Your task to perform on an android device: Go to notification settings Image 0: 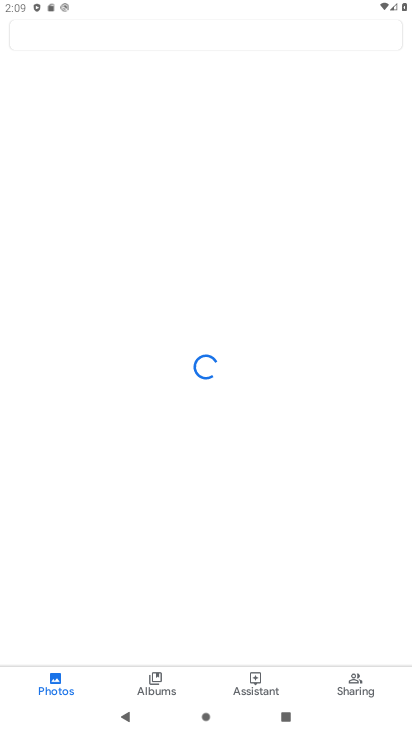
Step 0: press home button
Your task to perform on an android device: Go to notification settings Image 1: 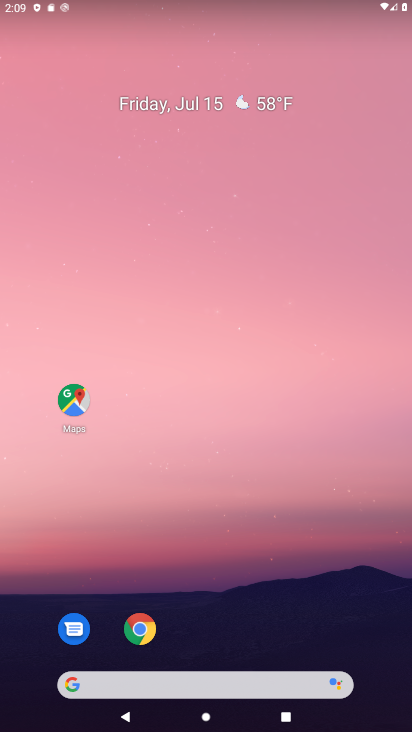
Step 1: drag from (292, 596) to (204, 4)
Your task to perform on an android device: Go to notification settings Image 2: 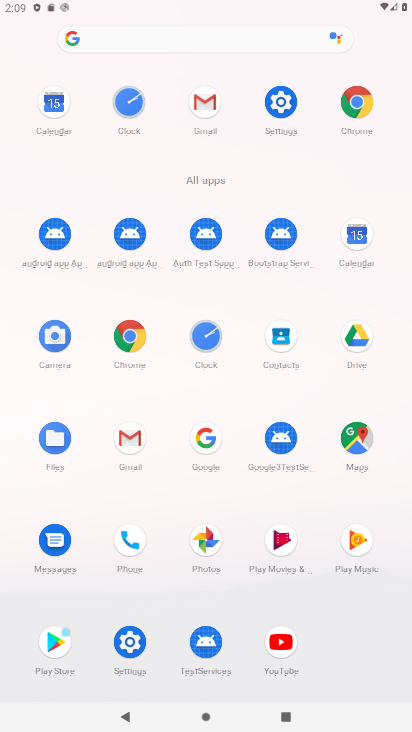
Step 2: click (284, 93)
Your task to perform on an android device: Go to notification settings Image 3: 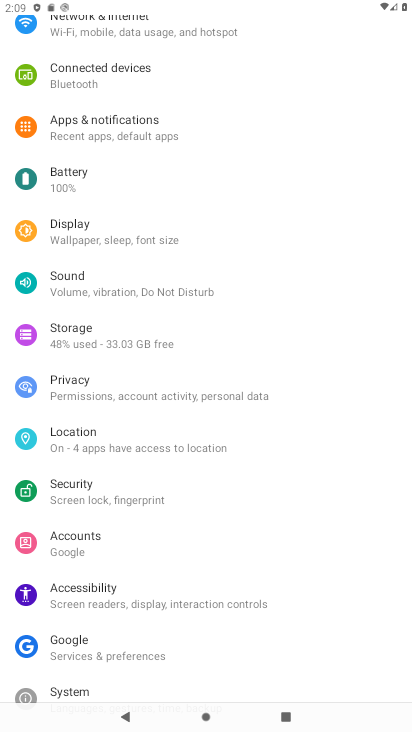
Step 3: click (154, 123)
Your task to perform on an android device: Go to notification settings Image 4: 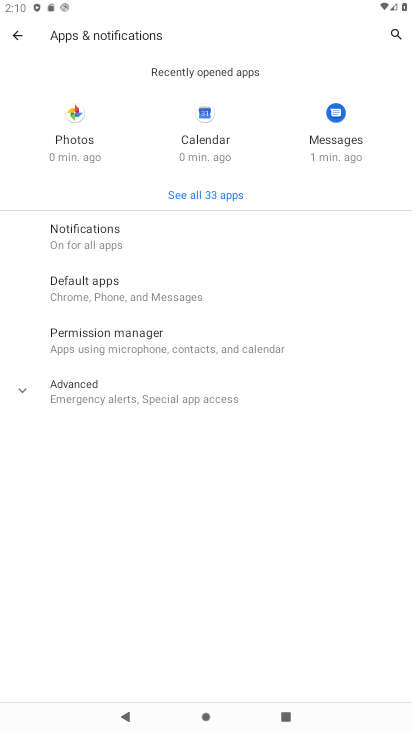
Step 4: click (252, 236)
Your task to perform on an android device: Go to notification settings Image 5: 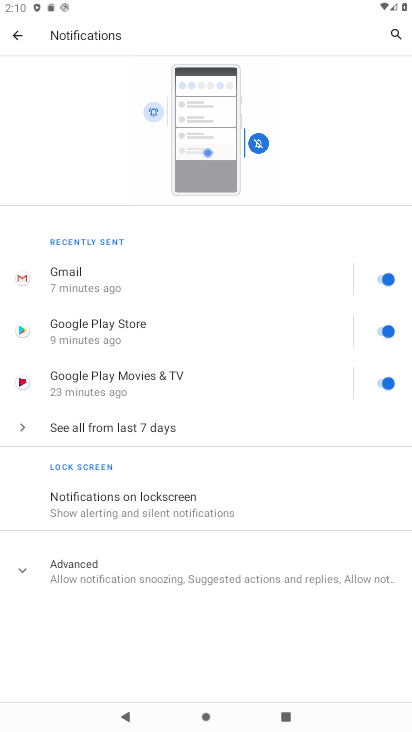
Step 5: task complete